Your task to perform on an android device: When is my next appointment? Image 0: 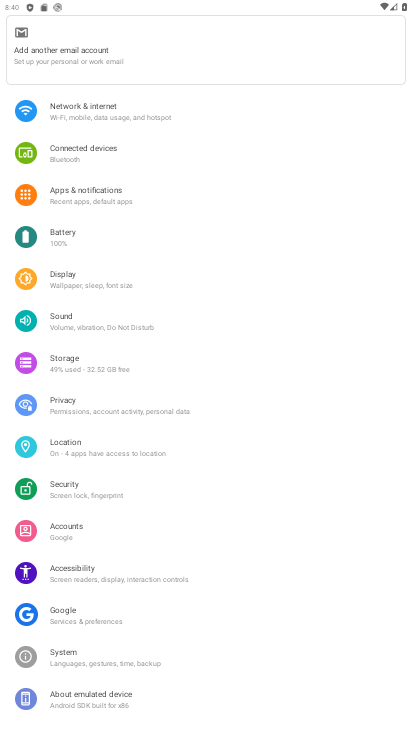
Step 0: press home button
Your task to perform on an android device: When is my next appointment? Image 1: 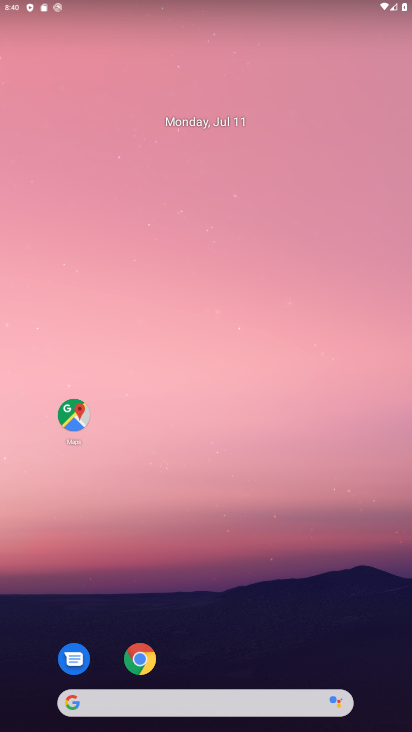
Step 1: drag from (31, 715) to (371, 5)
Your task to perform on an android device: When is my next appointment? Image 2: 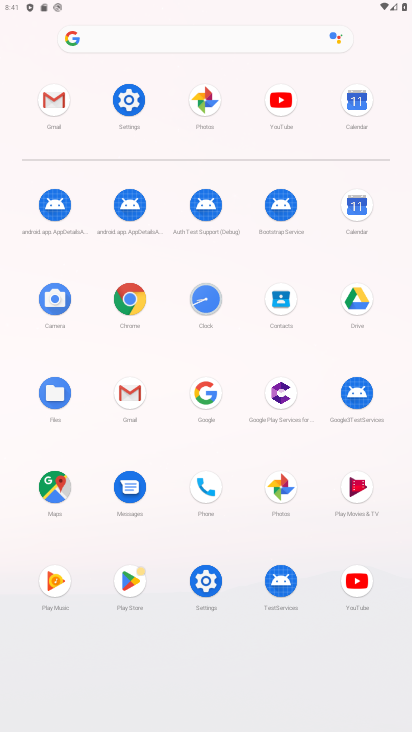
Step 2: click (358, 216)
Your task to perform on an android device: When is my next appointment? Image 3: 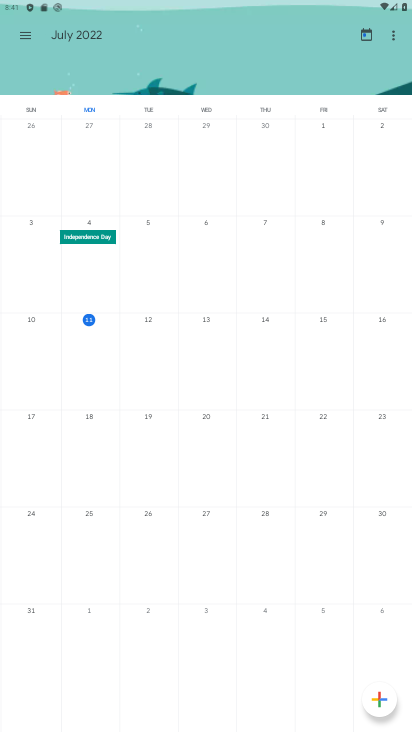
Step 3: click (21, 38)
Your task to perform on an android device: When is my next appointment? Image 4: 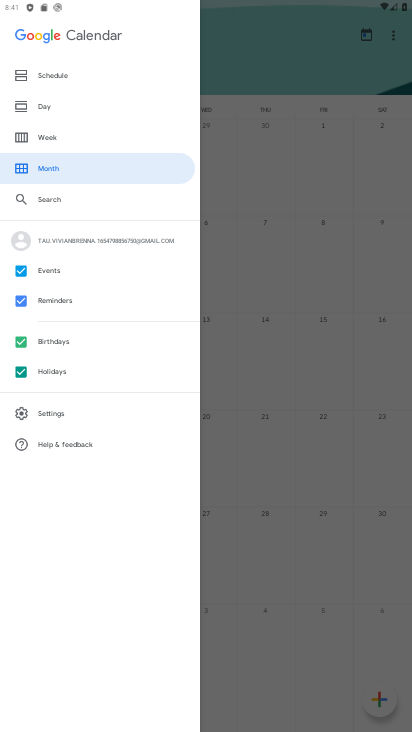
Step 4: click (273, 59)
Your task to perform on an android device: When is my next appointment? Image 5: 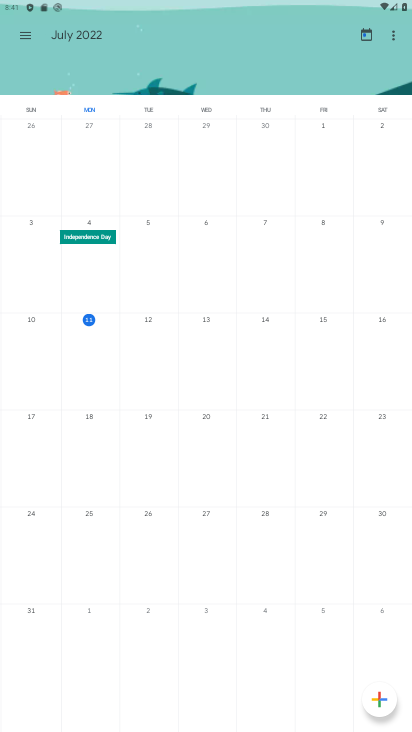
Step 5: task complete